Your task to perform on an android device: make emails show in primary in the gmail app Image 0: 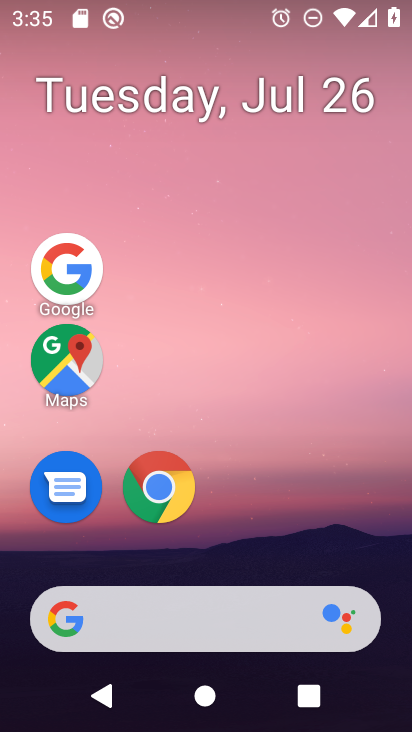
Step 0: drag from (245, 565) to (330, 28)
Your task to perform on an android device: make emails show in primary in the gmail app Image 1: 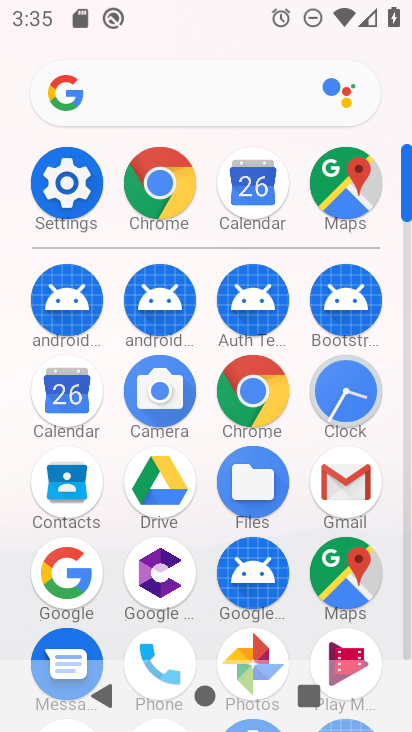
Step 1: click (347, 483)
Your task to perform on an android device: make emails show in primary in the gmail app Image 2: 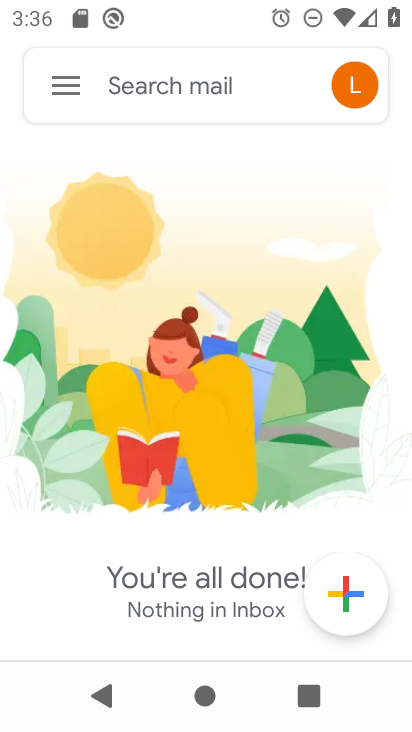
Step 2: click (60, 83)
Your task to perform on an android device: make emails show in primary in the gmail app Image 3: 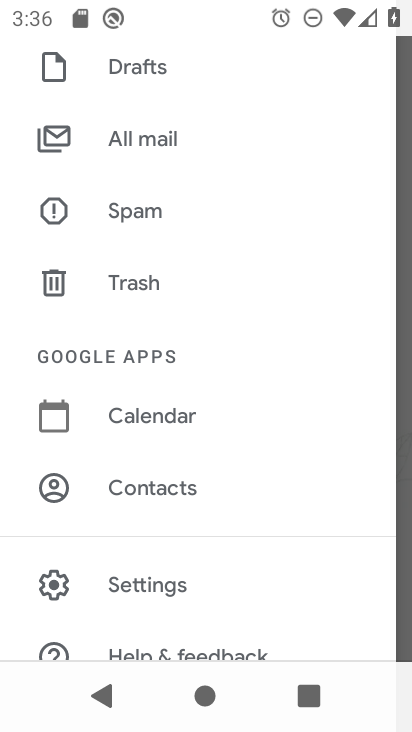
Step 3: drag from (155, 506) to (160, 344)
Your task to perform on an android device: make emails show in primary in the gmail app Image 4: 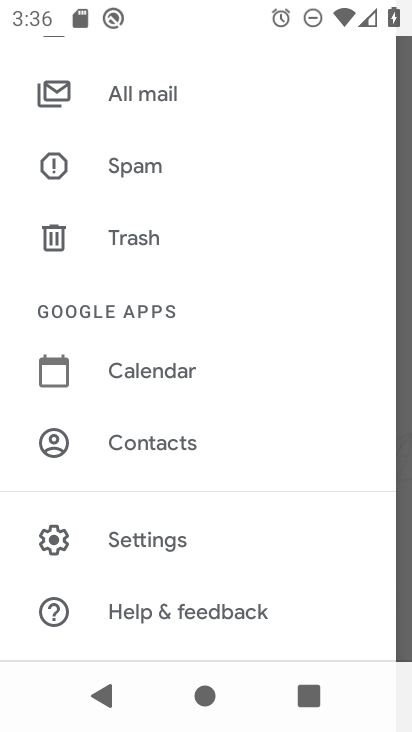
Step 4: click (170, 554)
Your task to perform on an android device: make emails show in primary in the gmail app Image 5: 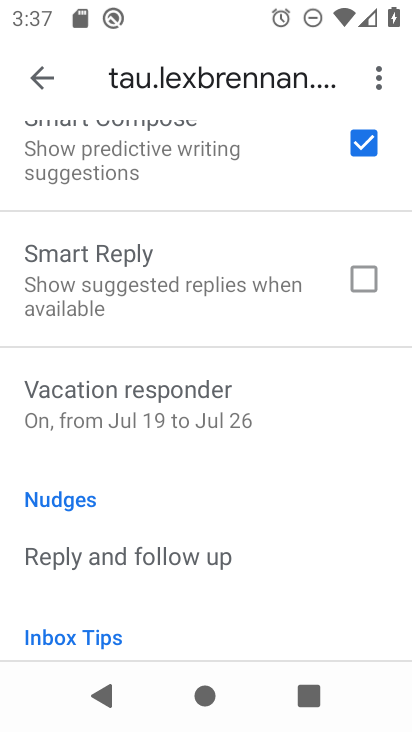
Step 5: drag from (205, 571) to (220, 308)
Your task to perform on an android device: make emails show in primary in the gmail app Image 6: 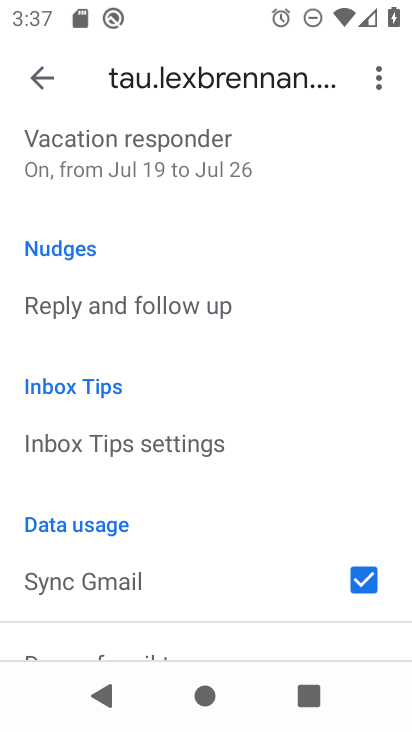
Step 6: drag from (155, 566) to (205, 283)
Your task to perform on an android device: make emails show in primary in the gmail app Image 7: 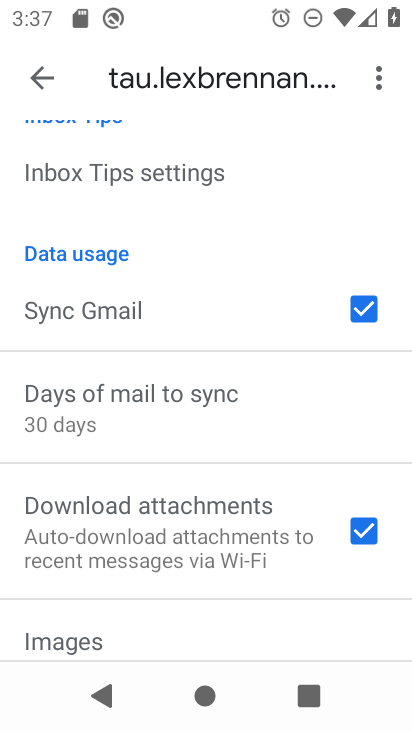
Step 7: drag from (159, 504) to (185, 280)
Your task to perform on an android device: make emails show in primary in the gmail app Image 8: 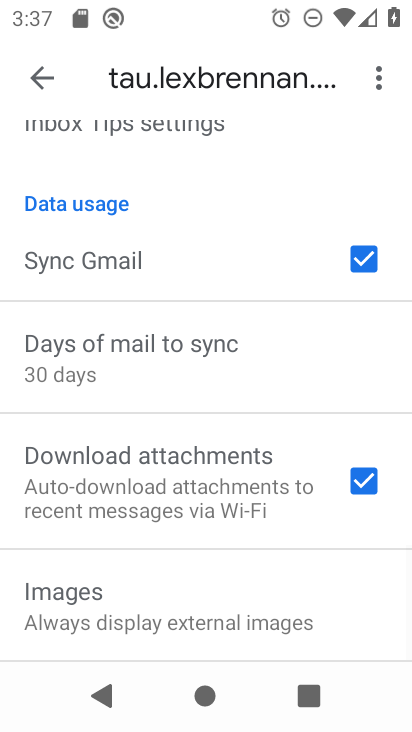
Step 8: drag from (145, 522) to (135, 288)
Your task to perform on an android device: make emails show in primary in the gmail app Image 9: 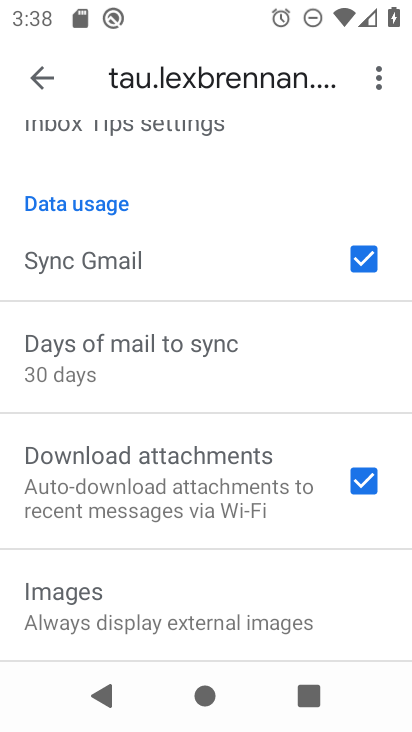
Step 9: click (49, 74)
Your task to perform on an android device: make emails show in primary in the gmail app Image 10: 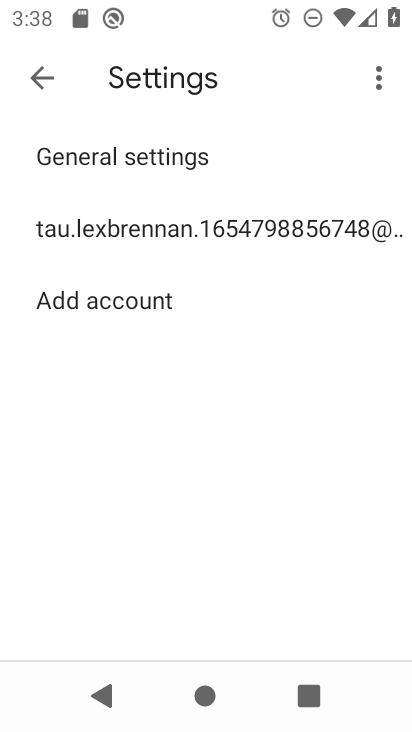
Step 10: task complete